Your task to perform on an android device: Open sound settings Image 0: 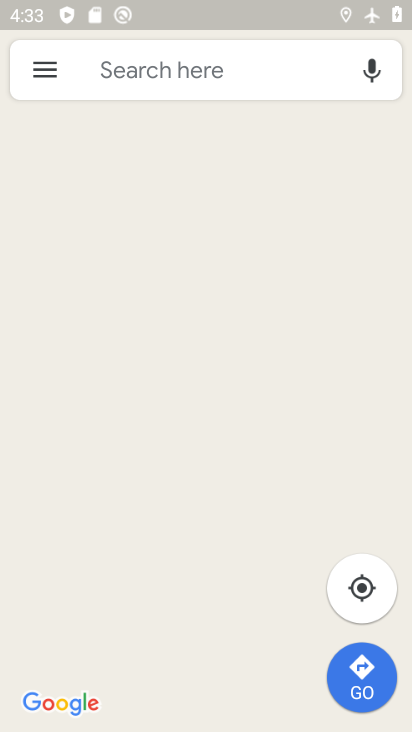
Step 0: press home button
Your task to perform on an android device: Open sound settings Image 1: 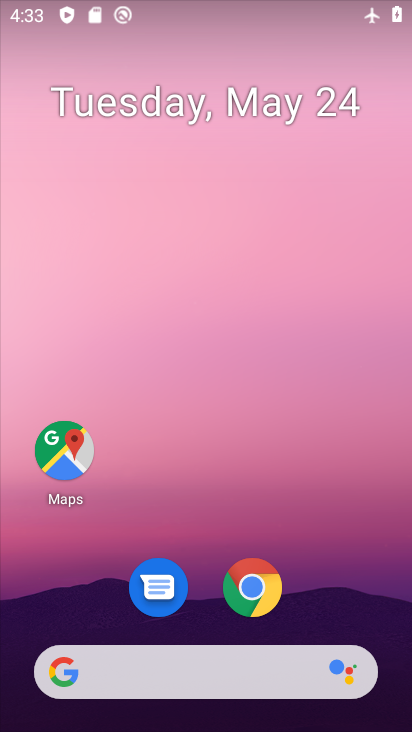
Step 1: drag from (345, 605) to (265, 123)
Your task to perform on an android device: Open sound settings Image 2: 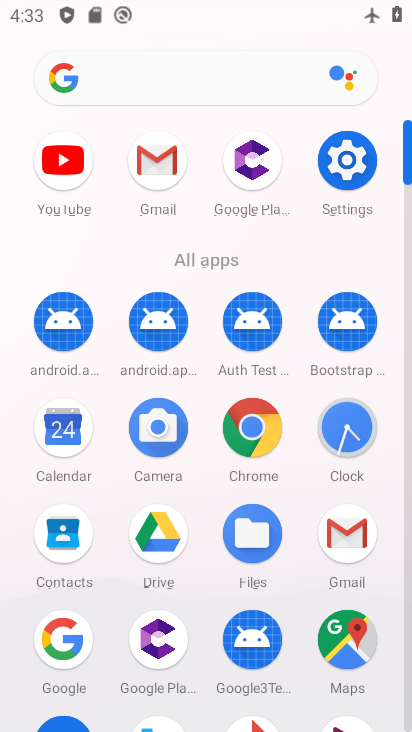
Step 2: click (338, 185)
Your task to perform on an android device: Open sound settings Image 3: 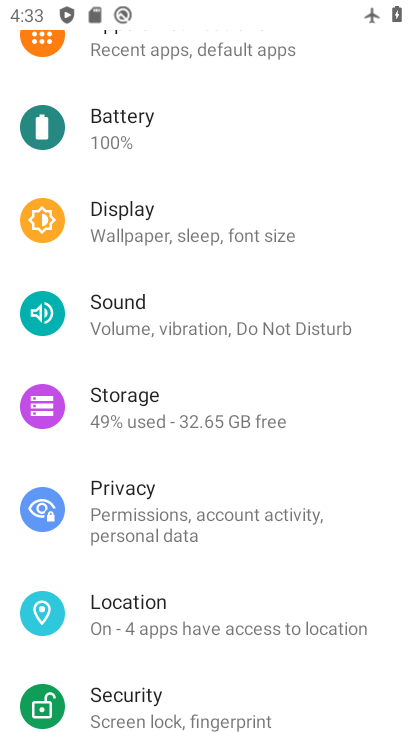
Step 3: click (209, 313)
Your task to perform on an android device: Open sound settings Image 4: 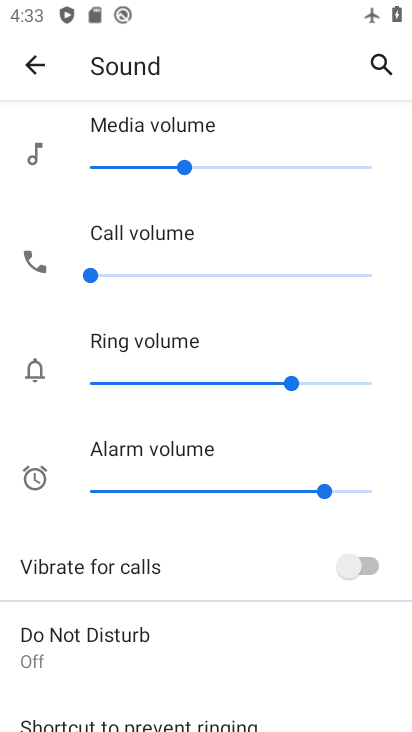
Step 4: task complete